Your task to perform on an android device: turn notification dots off Image 0: 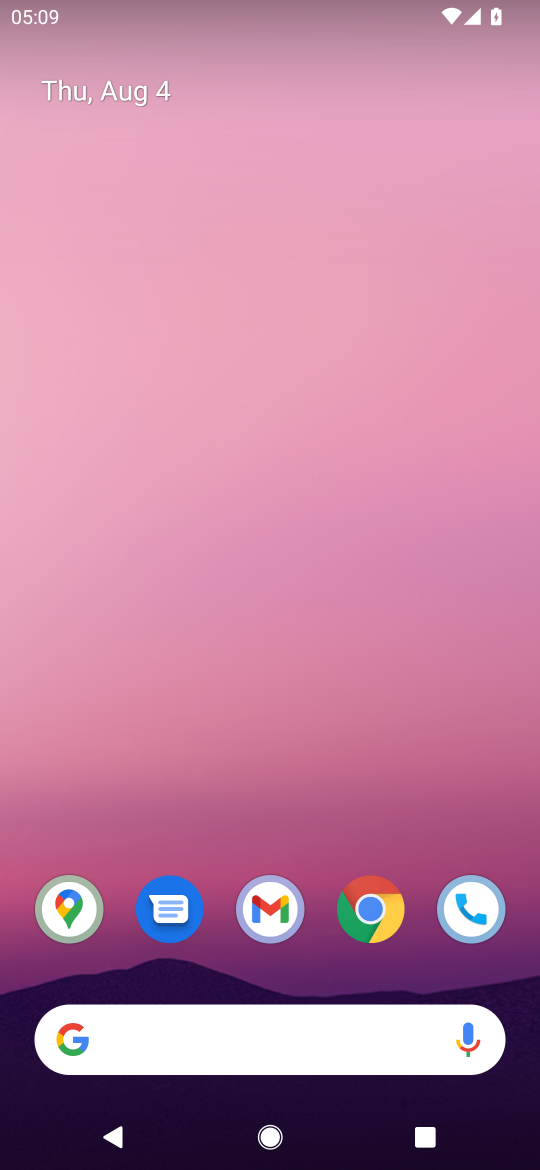
Step 0: press home button
Your task to perform on an android device: turn notification dots off Image 1: 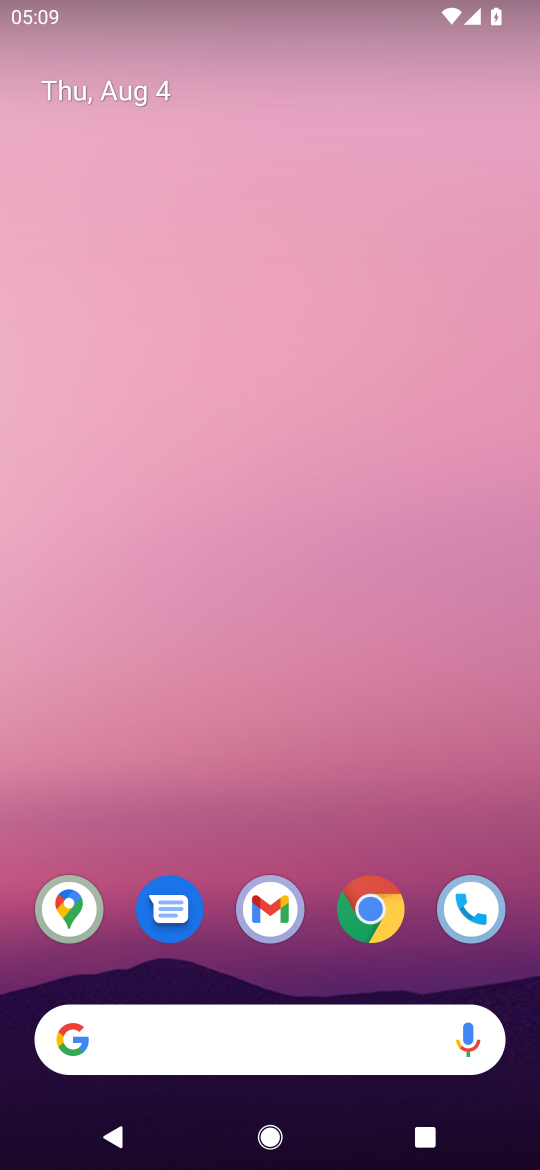
Step 1: drag from (349, 808) to (395, 65)
Your task to perform on an android device: turn notification dots off Image 2: 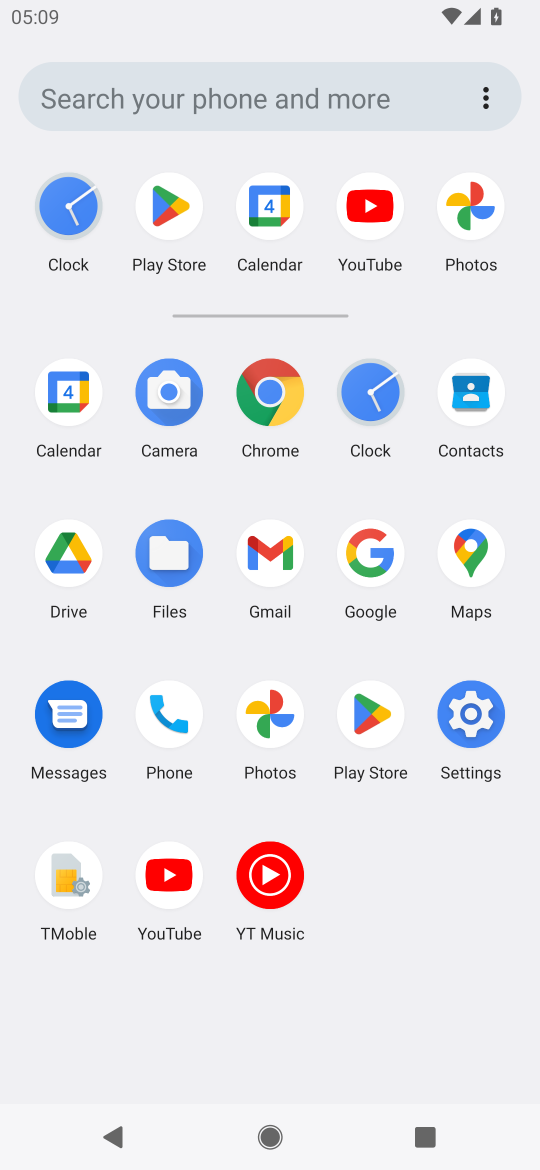
Step 2: click (454, 683)
Your task to perform on an android device: turn notification dots off Image 3: 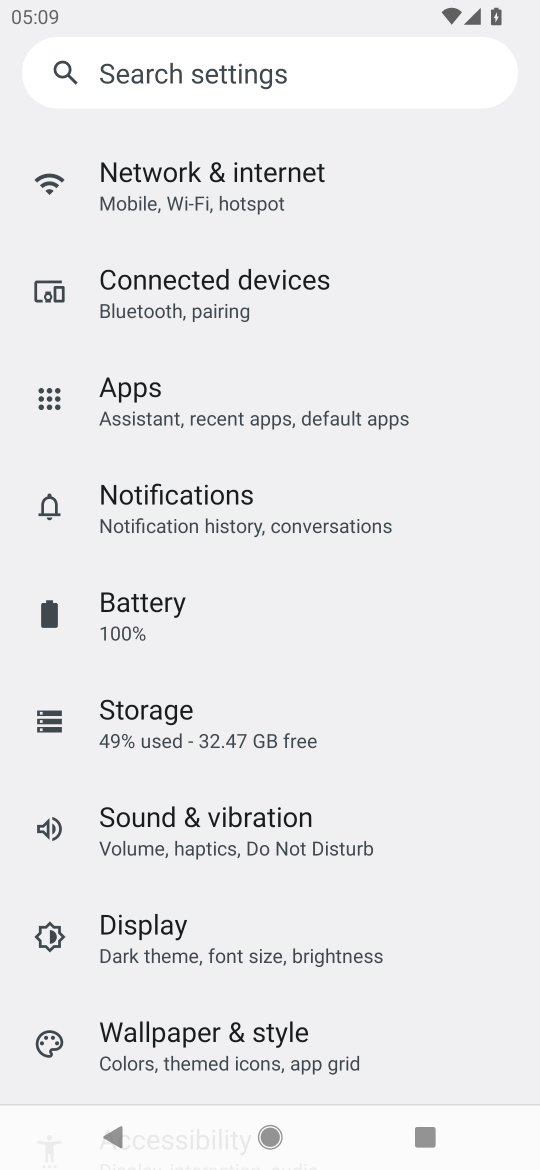
Step 3: click (237, 509)
Your task to perform on an android device: turn notification dots off Image 4: 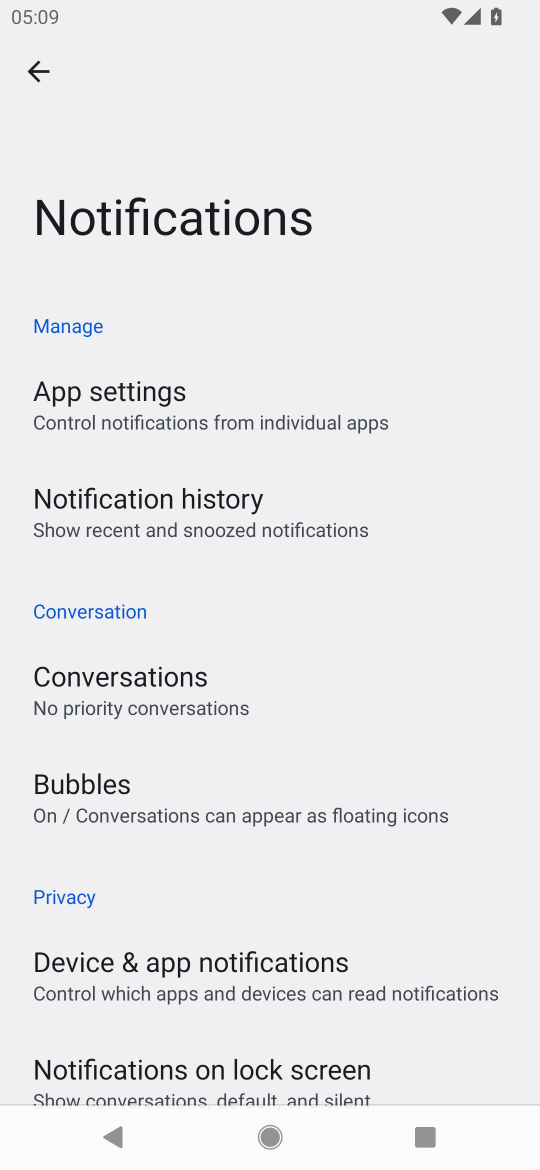
Step 4: drag from (352, 876) to (431, 641)
Your task to perform on an android device: turn notification dots off Image 5: 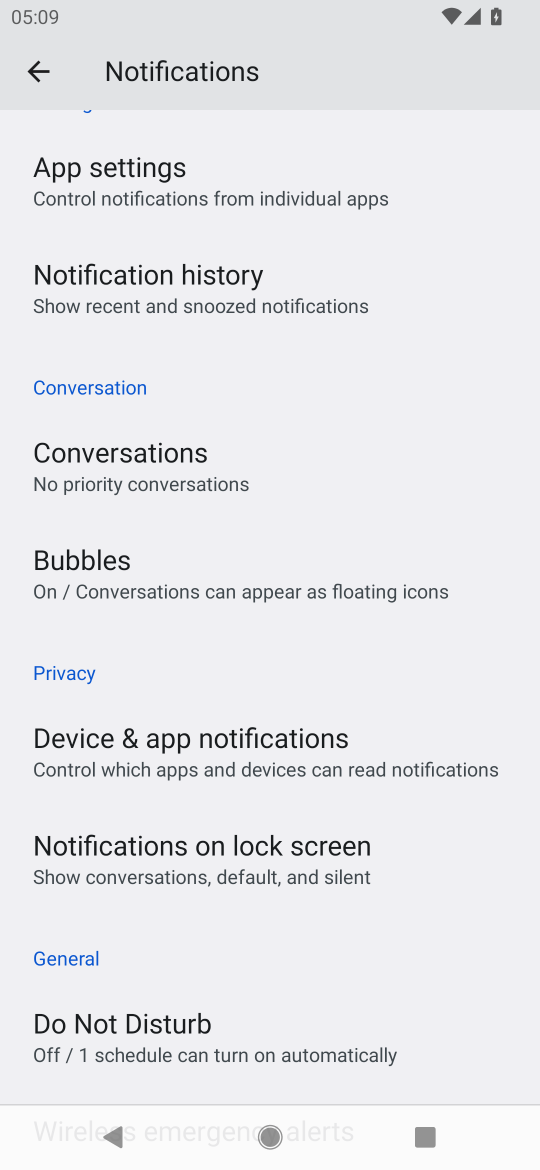
Step 5: drag from (431, 641) to (378, 1144)
Your task to perform on an android device: turn notification dots off Image 6: 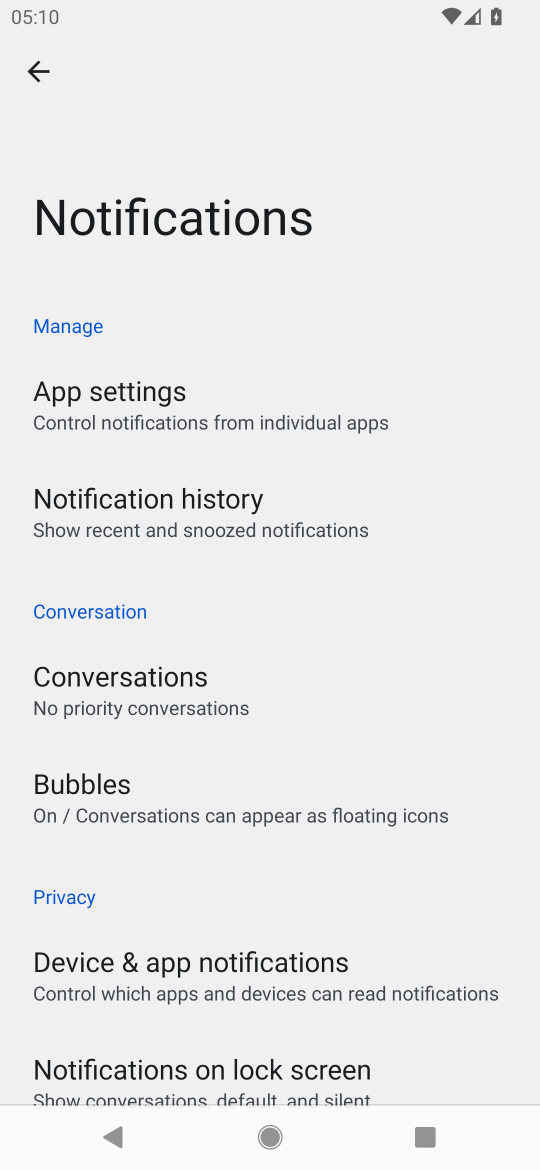
Step 6: drag from (211, 879) to (244, 369)
Your task to perform on an android device: turn notification dots off Image 7: 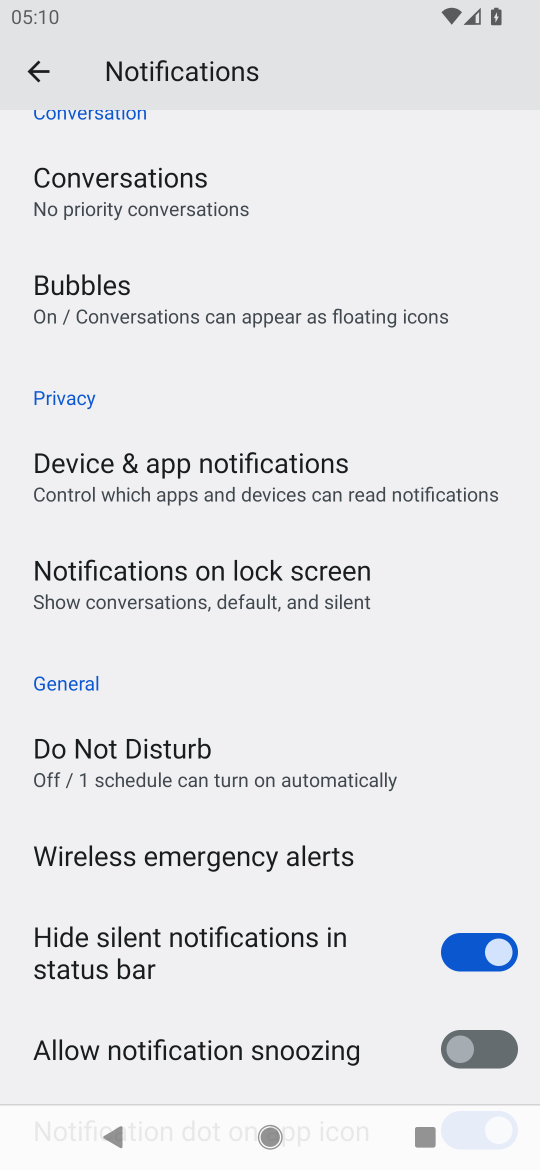
Step 7: drag from (228, 1013) to (229, 566)
Your task to perform on an android device: turn notification dots off Image 8: 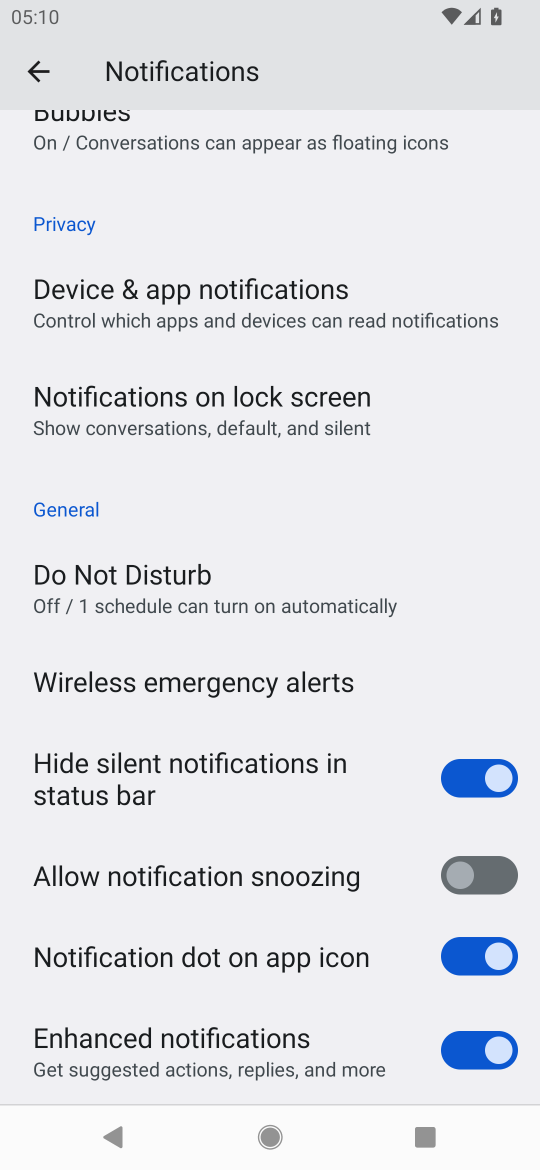
Step 8: drag from (198, 991) to (214, 905)
Your task to perform on an android device: turn notification dots off Image 9: 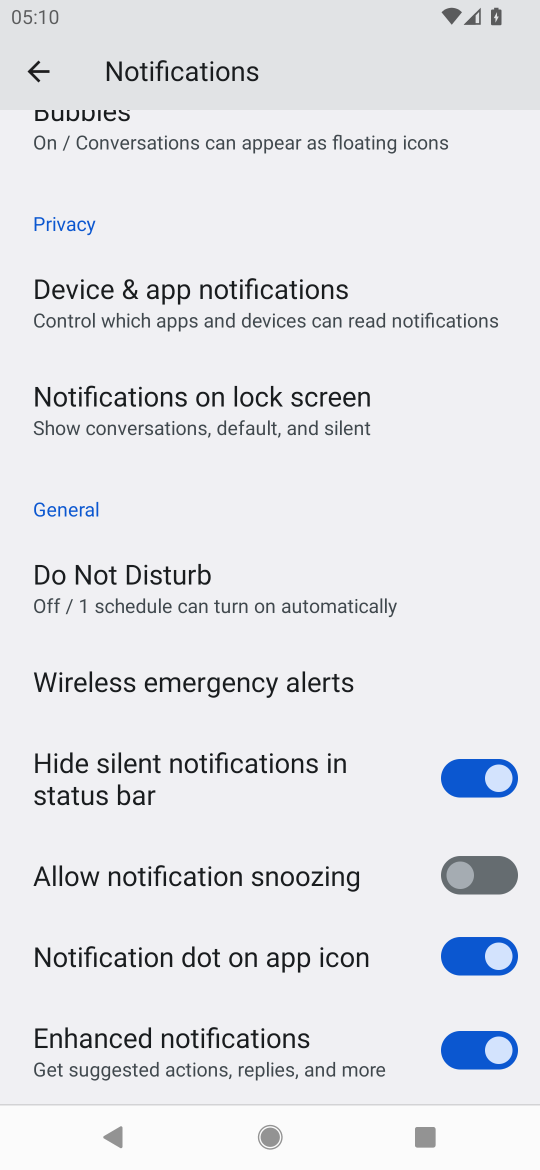
Step 9: click (488, 951)
Your task to perform on an android device: turn notification dots off Image 10: 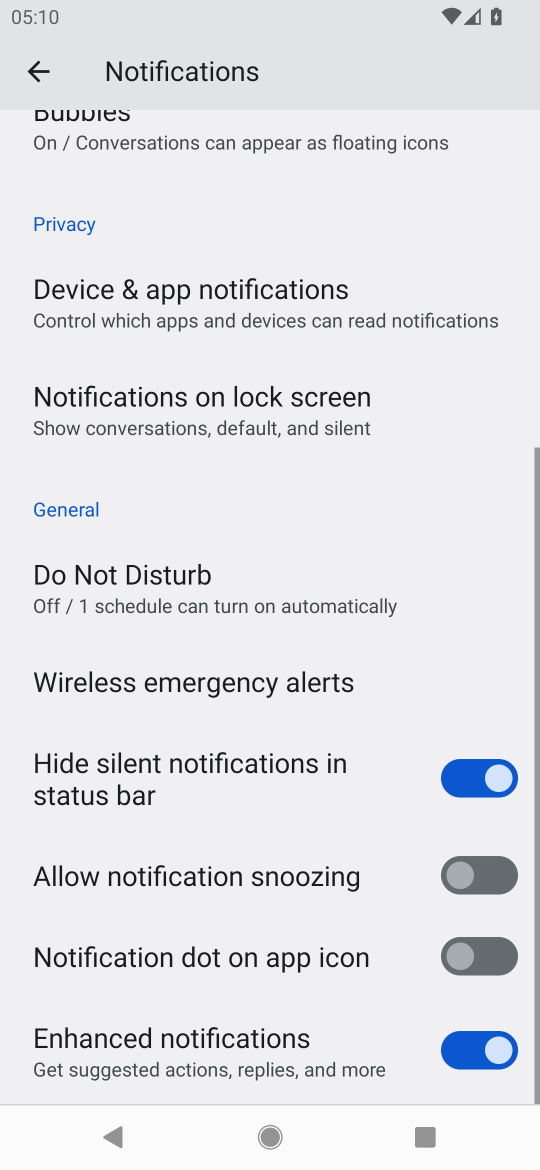
Step 10: task complete